Your task to perform on an android device: turn off improve location accuracy Image 0: 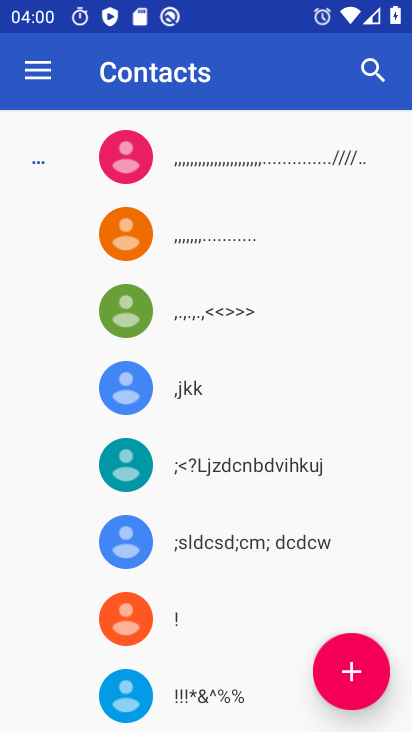
Step 0: press home button
Your task to perform on an android device: turn off improve location accuracy Image 1: 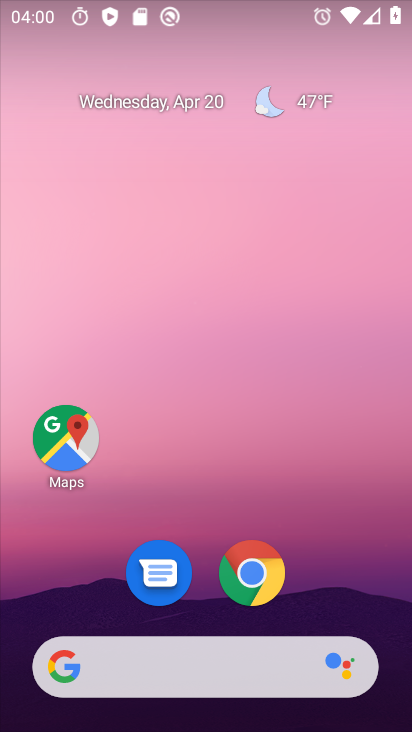
Step 1: drag from (195, 724) to (178, 223)
Your task to perform on an android device: turn off improve location accuracy Image 2: 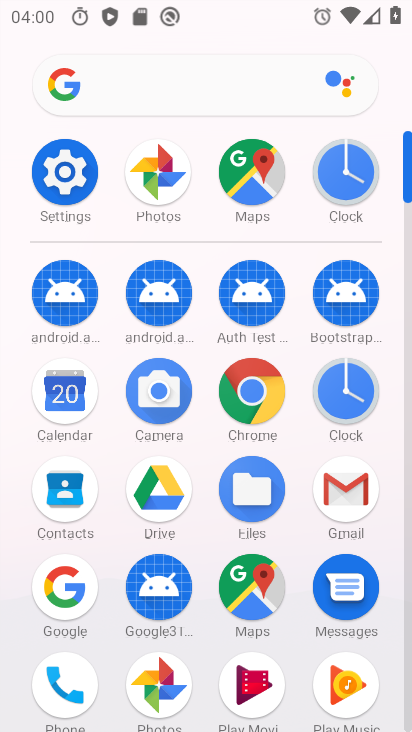
Step 2: click (68, 163)
Your task to perform on an android device: turn off improve location accuracy Image 3: 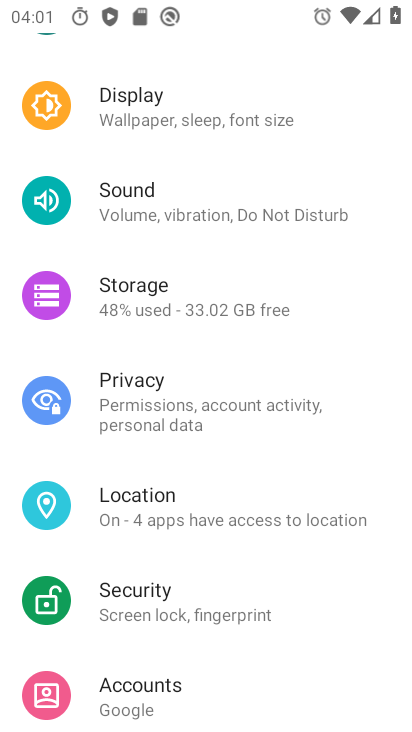
Step 3: click (155, 491)
Your task to perform on an android device: turn off improve location accuracy Image 4: 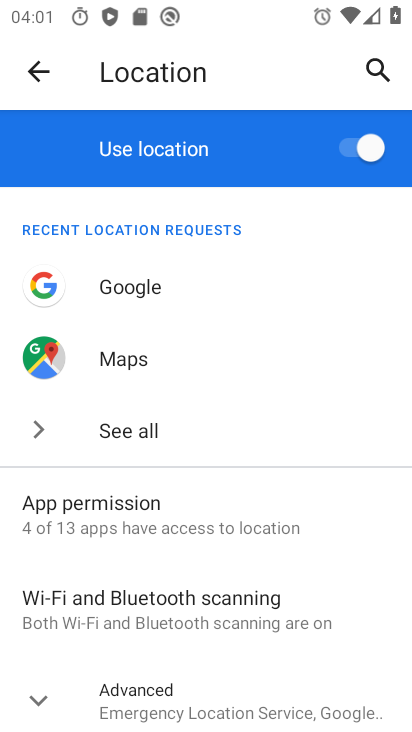
Step 4: drag from (185, 663) to (185, 247)
Your task to perform on an android device: turn off improve location accuracy Image 5: 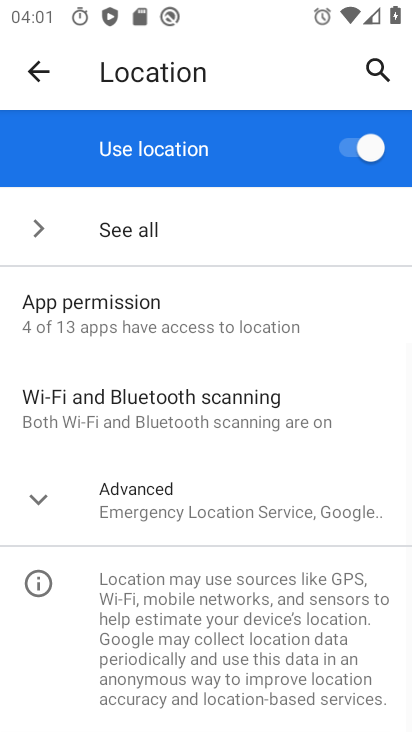
Step 5: click (159, 491)
Your task to perform on an android device: turn off improve location accuracy Image 6: 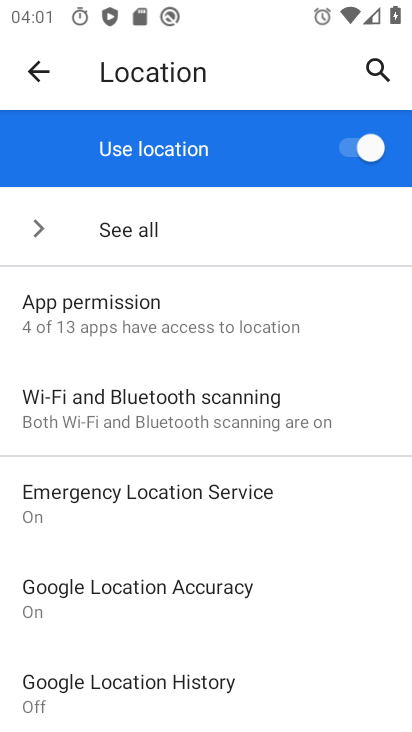
Step 6: click (147, 587)
Your task to perform on an android device: turn off improve location accuracy Image 7: 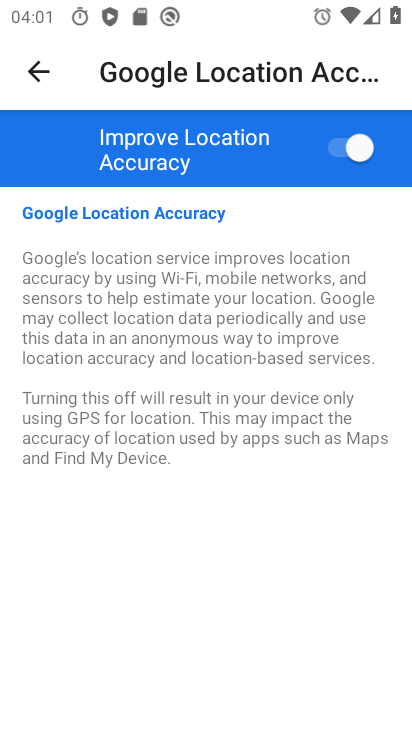
Step 7: click (335, 148)
Your task to perform on an android device: turn off improve location accuracy Image 8: 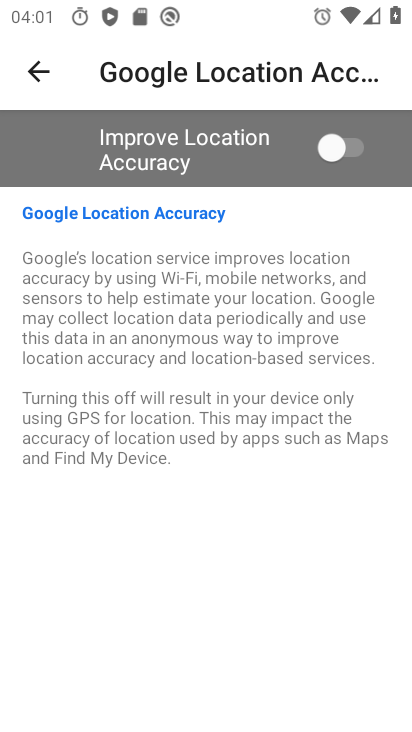
Step 8: task complete